Your task to perform on an android device: turn on wifi Image 0: 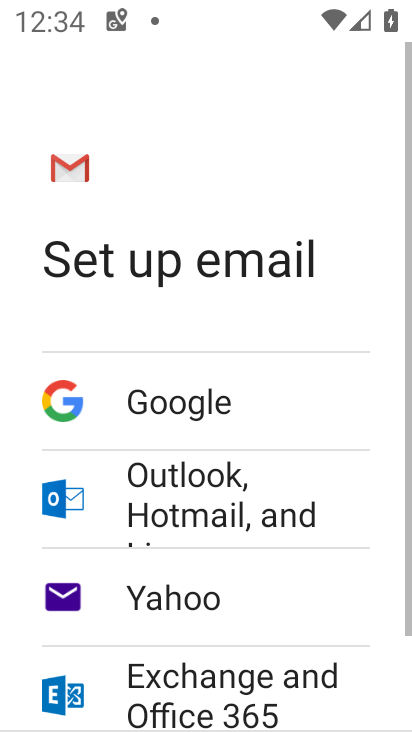
Step 0: press back button
Your task to perform on an android device: turn on wifi Image 1: 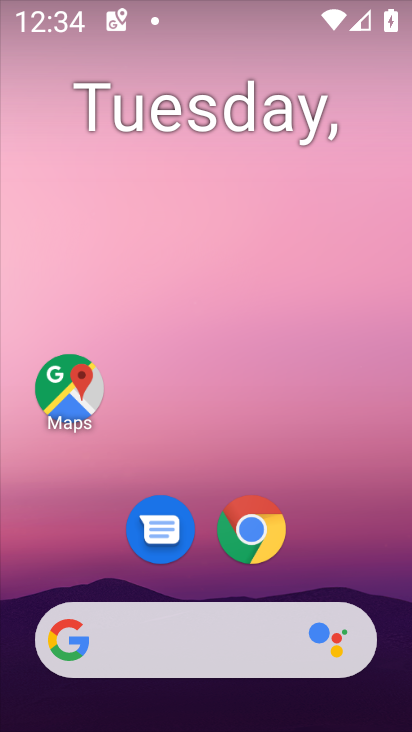
Step 1: task complete